Your task to perform on an android device: Open calendar and show me the second week of next month Image 0: 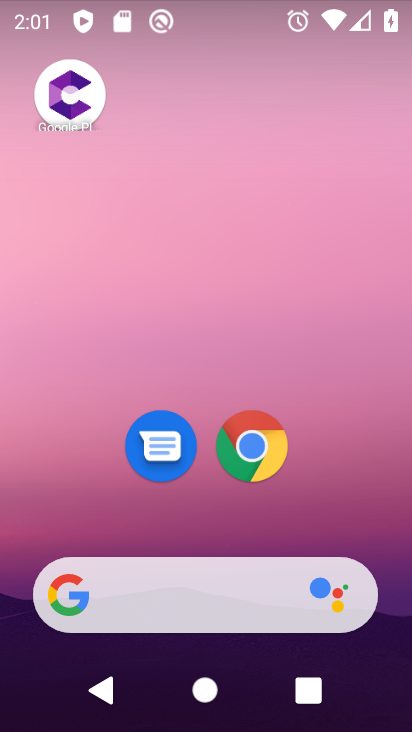
Step 0: drag from (399, 611) to (345, 108)
Your task to perform on an android device: Open calendar and show me the second week of next month Image 1: 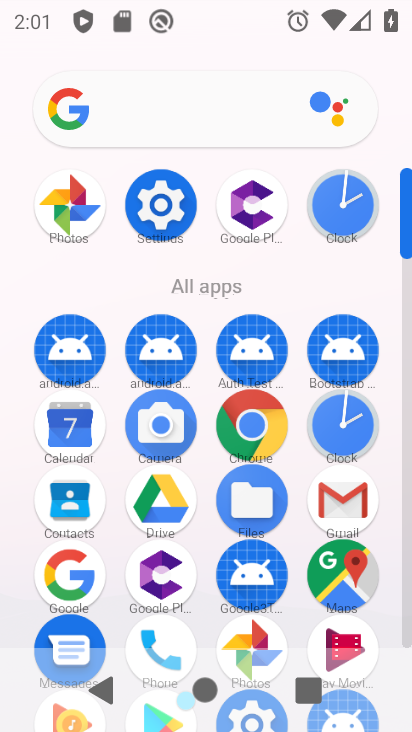
Step 1: click (406, 628)
Your task to perform on an android device: Open calendar and show me the second week of next month Image 2: 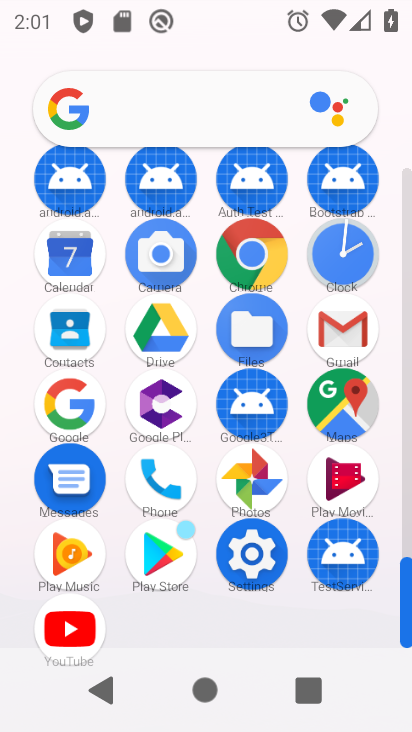
Step 2: click (66, 258)
Your task to perform on an android device: Open calendar and show me the second week of next month Image 3: 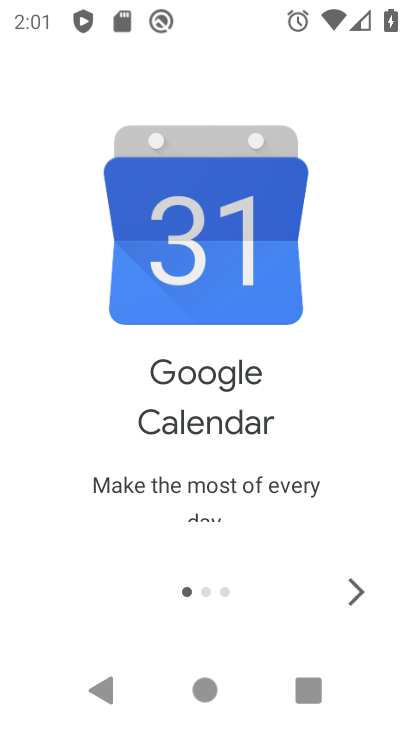
Step 3: click (353, 590)
Your task to perform on an android device: Open calendar and show me the second week of next month Image 4: 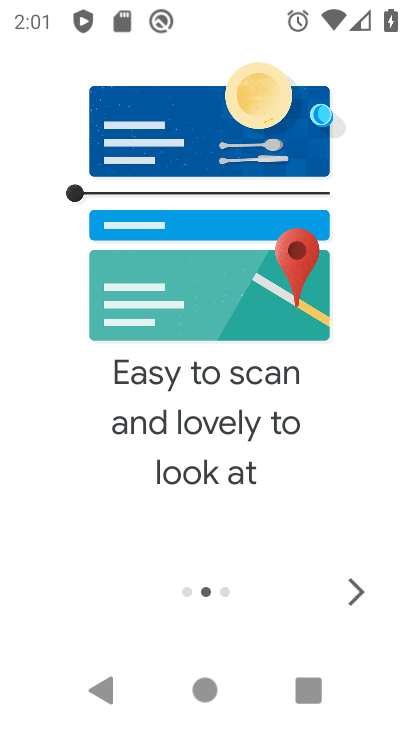
Step 4: click (353, 590)
Your task to perform on an android device: Open calendar and show me the second week of next month Image 5: 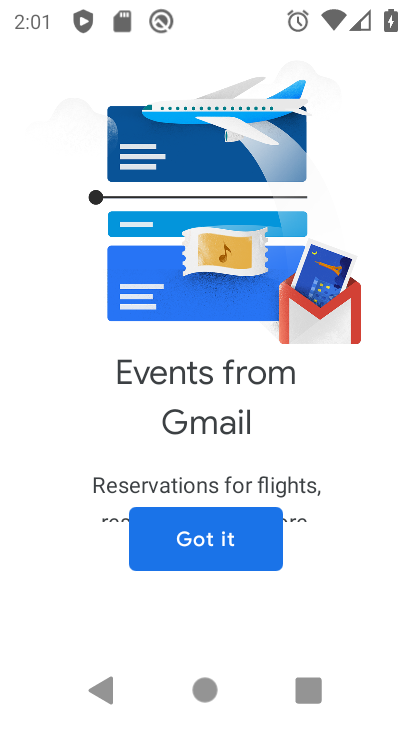
Step 5: click (196, 537)
Your task to perform on an android device: Open calendar and show me the second week of next month Image 6: 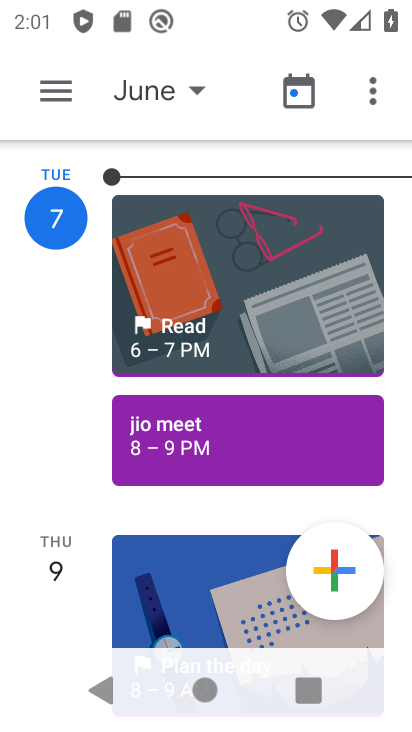
Step 6: click (58, 93)
Your task to perform on an android device: Open calendar and show me the second week of next month Image 7: 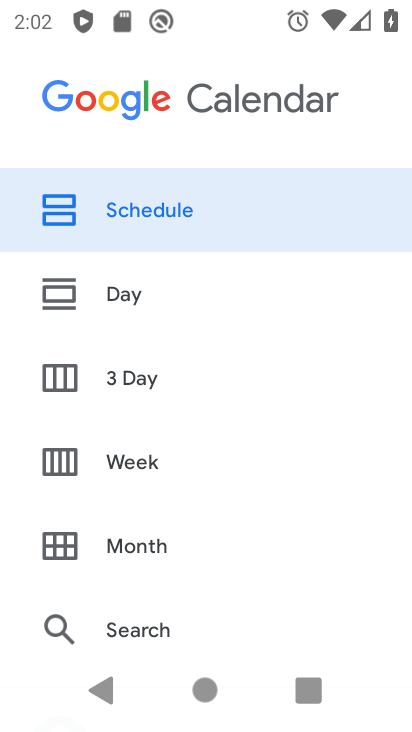
Step 7: click (129, 467)
Your task to perform on an android device: Open calendar and show me the second week of next month Image 8: 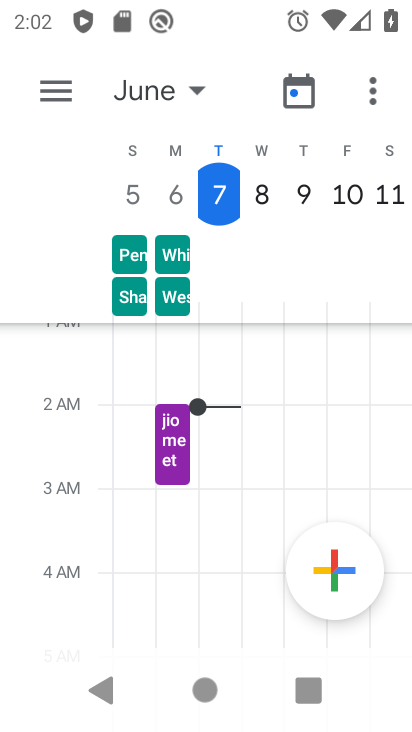
Step 8: click (183, 92)
Your task to perform on an android device: Open calendar and show me the second week of next month Image 9: 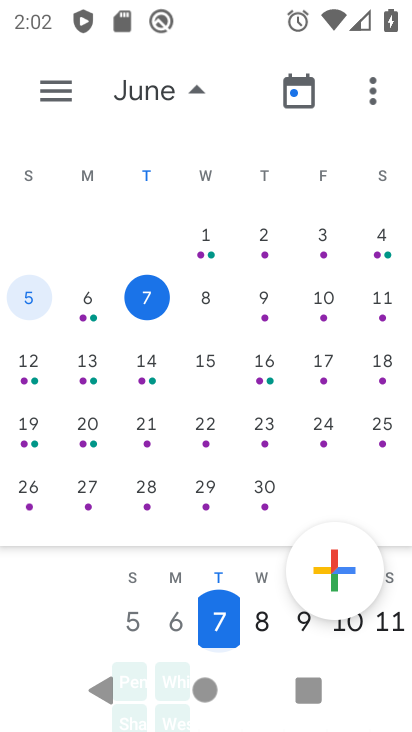
Step 9: drag from (383, 414) to (31, 356)
Your task to perform on an android device: Open calendar and show me the second week of next month Image 10: 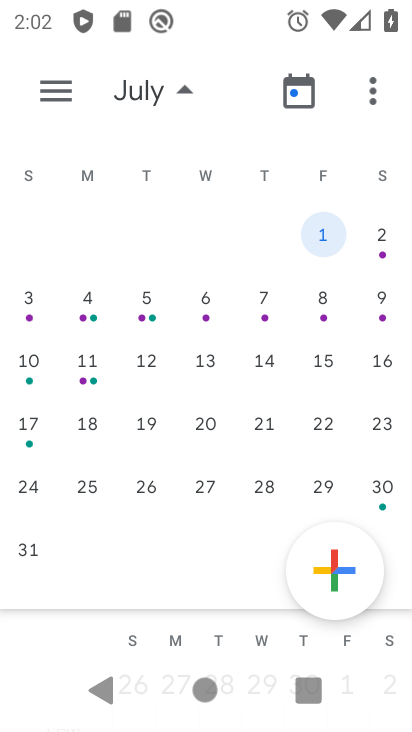
Step 10: click (35, 364)
Your task to perform on an android device: Open calendar and show me the second week of next month Image 11: 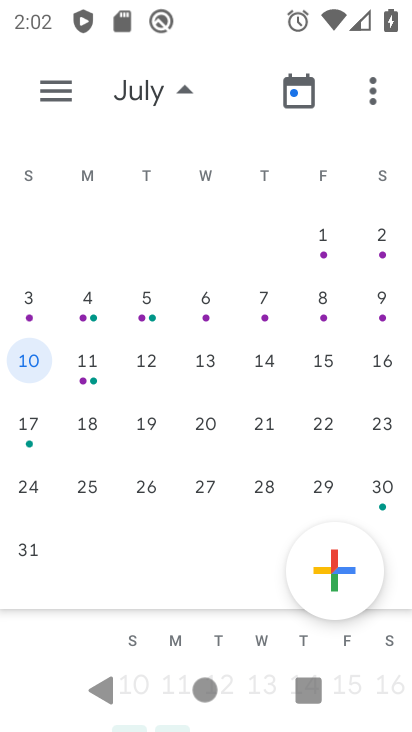
Step 11: task complete